Your task to perform on an android device: Empty the shopping cart on ebay. Image 0: 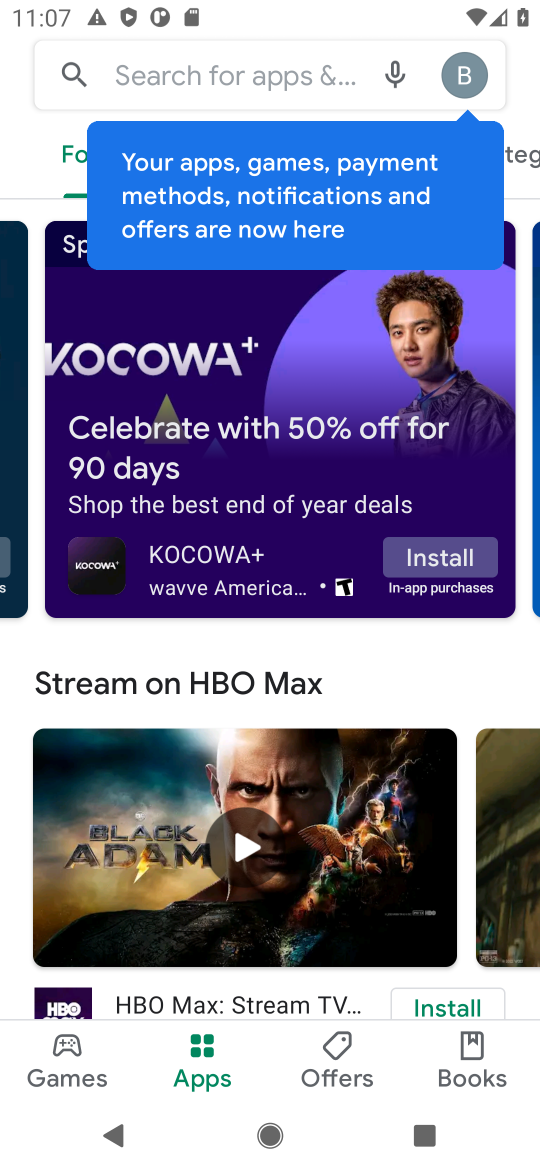
Step 0: press home button
Your task to perform on an android device: Empty the shopping cart on ebay. Image 1: 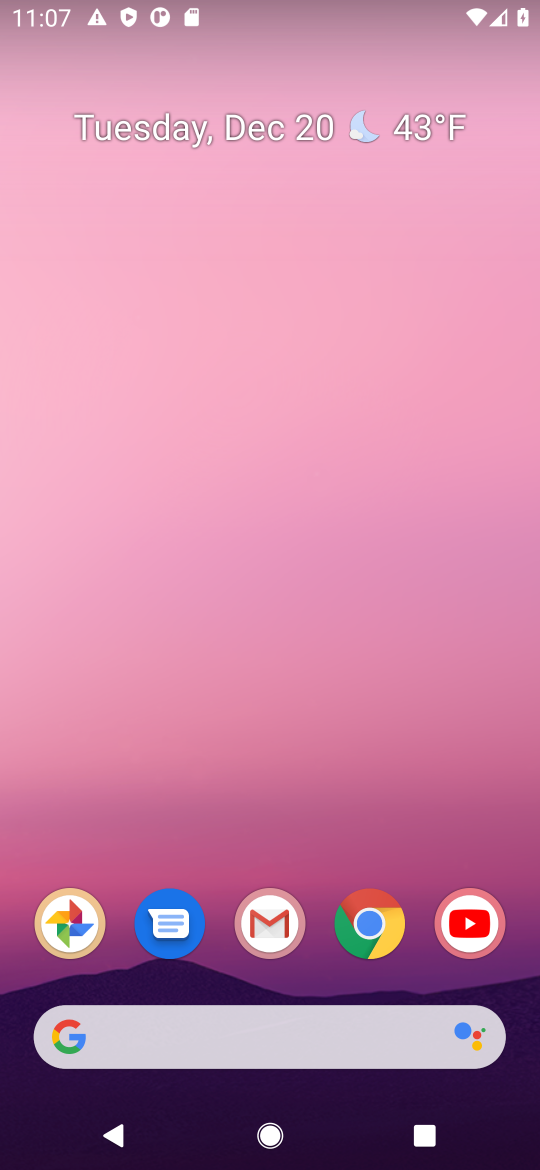
Step 1: click (390, 918)
Your task to perform on an android device: Empty the shopping cart on ebay. Image 2: 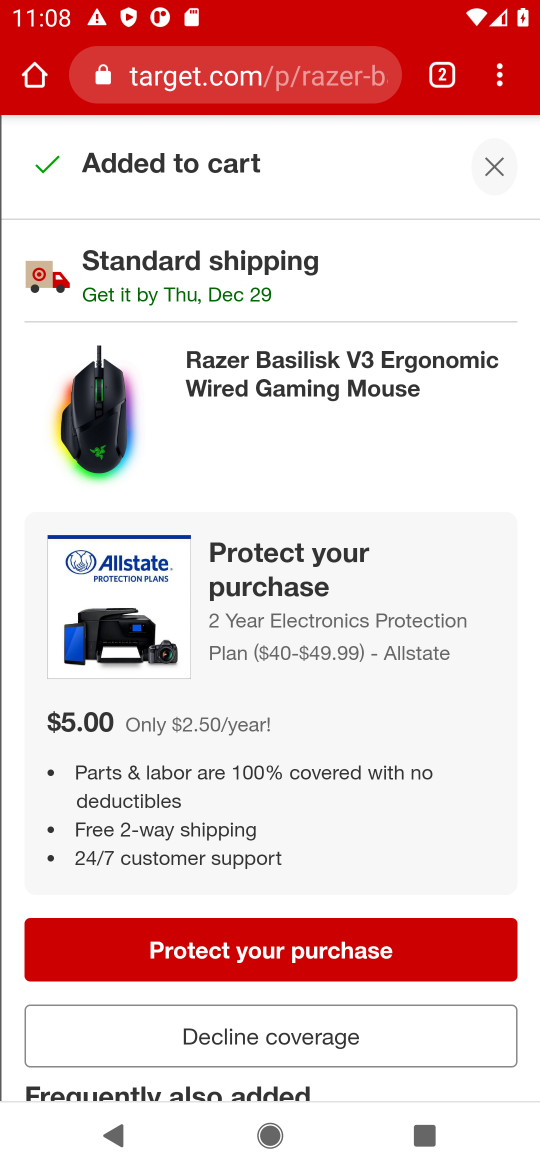
Step 2: task complete